Your task to perform on an android device: What's the weather going to be this weekend? Image 0: 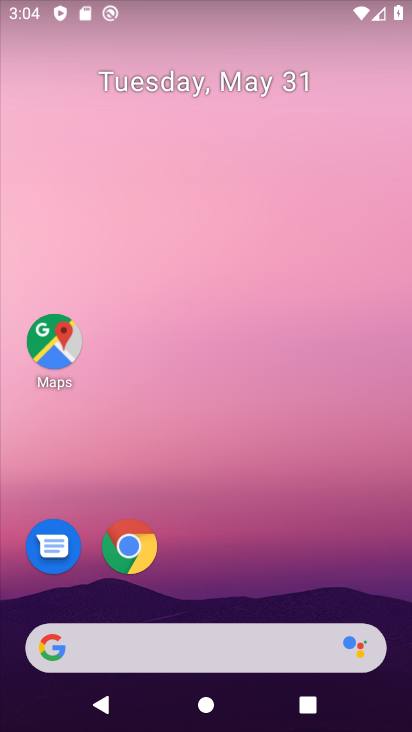
Step 0: drag from (242, 583) to (196, 172)
Your task to perform on an android device: What's the weather going to be this weekend? Image 1: 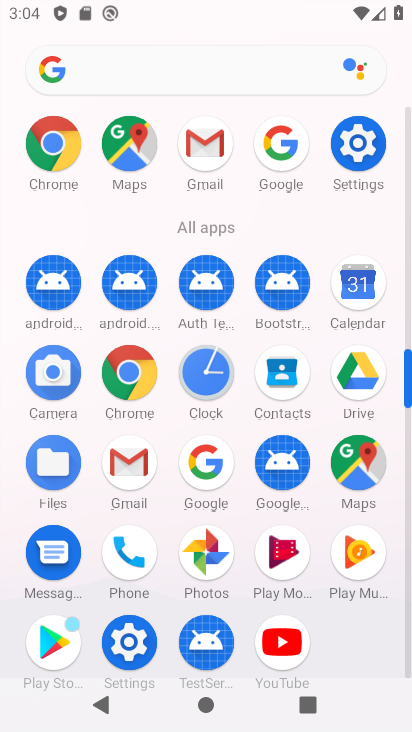
Step 1: click (281, 176)
Your task to perform on an android device: What's the weather going to be this weekend? Image 2: 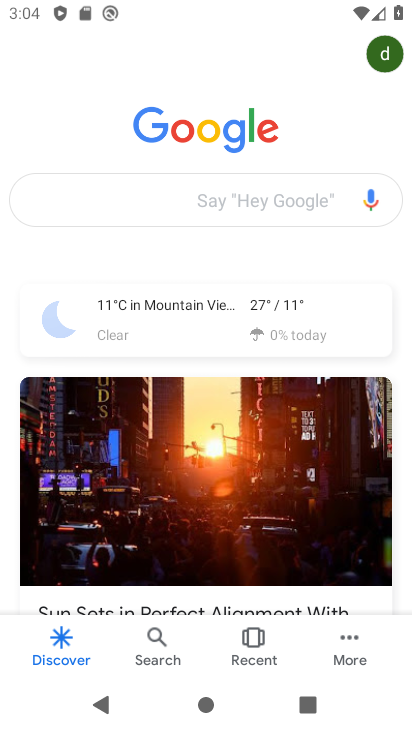
Step 2: click (173, 202)
Your task to perform on an android device: What's the weather going to be this weekend? Image 3: 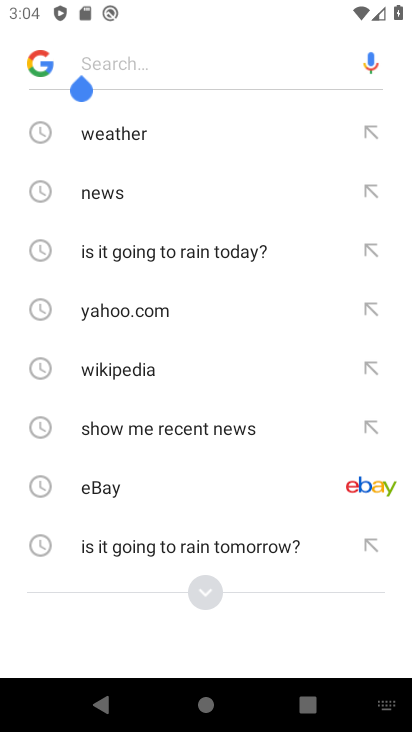
Step 3: click (106, 135)
Your task to perform on an android device: What's the weather going to be this weekend? Image 4: 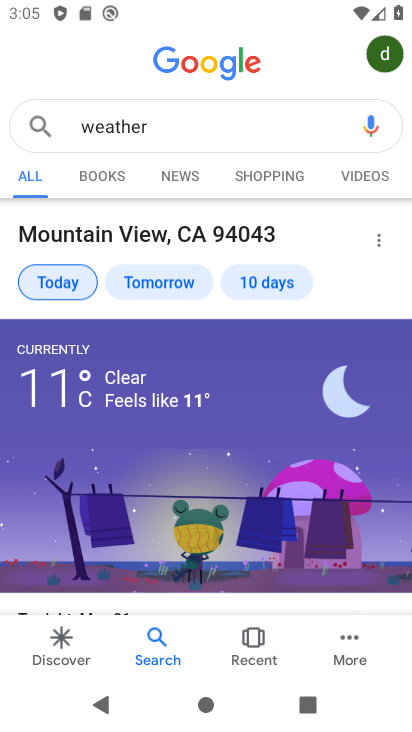
Step 4: drag from (186, 286) to (301, 297)
Your task to perform on an android device: What's the weather going to be this weekend? Image 5: 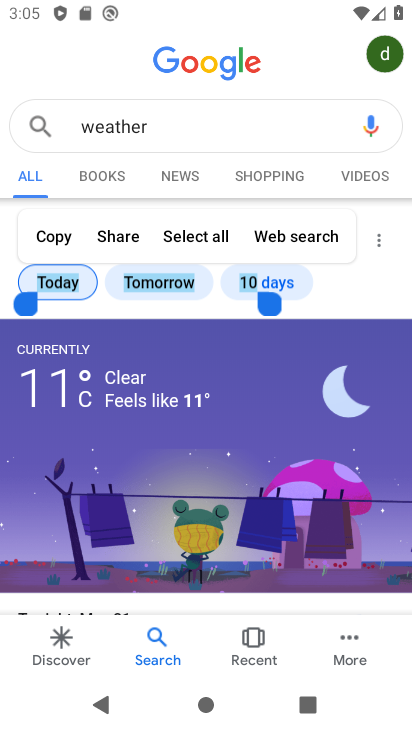
Step 5: click (285, 294)
Your task to perform on an android device: What's the weather going to be this weekend? Image 6: 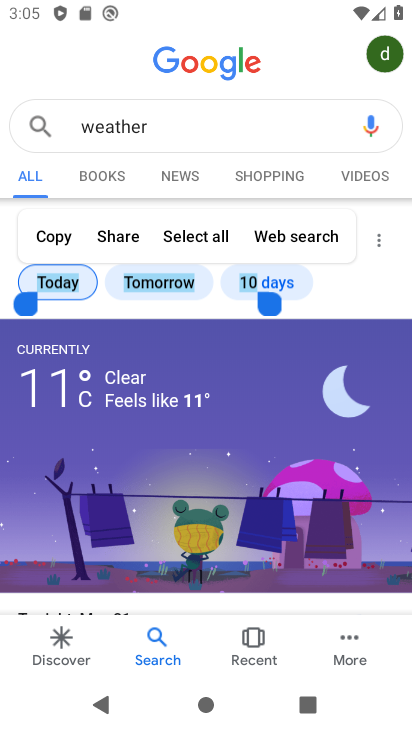
Step 6: click (270, 281)
Your task to perform on an android device: What's the weather going to be this weekend? Image 7: 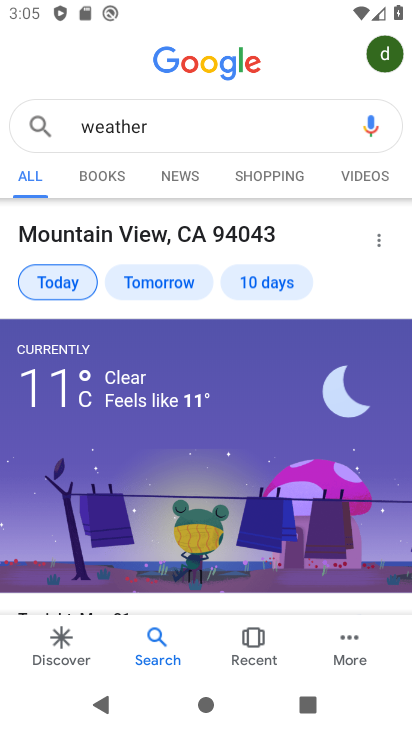
Step 7: click (262, 288)
Your task to perform on an android device: What's the weather going to be this weekend? Image 8: 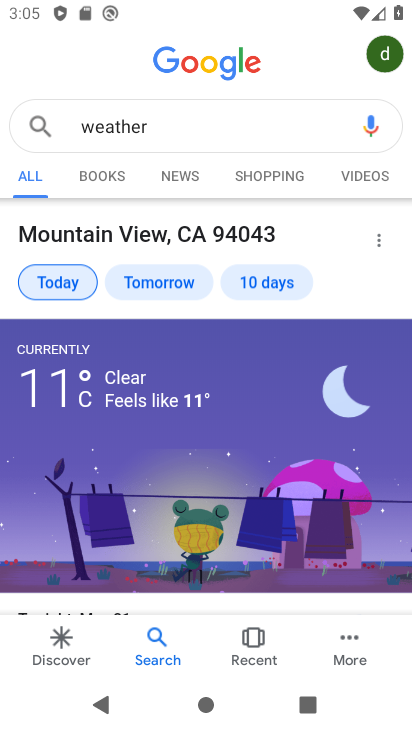
Step 8: click (252, 280)
Your task to perform on an android device: What's the weather going to be this weekend? Image 9: 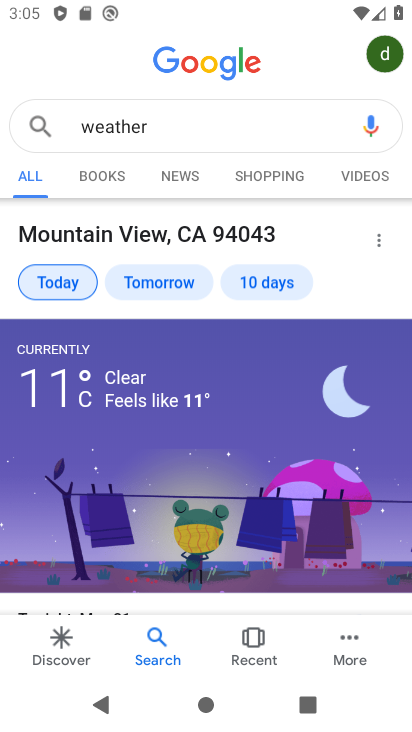
Step 9: click (252, 280)
Your task to perform on an android device: What's the weather going to be this weekend? Image 10: 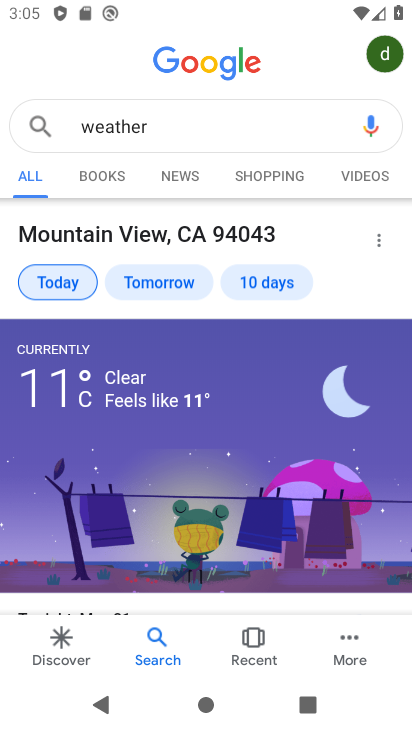
Step 10: click (252, 280)
Your task to perform on an android device: What's the weather going to be this weekend? Image 11: 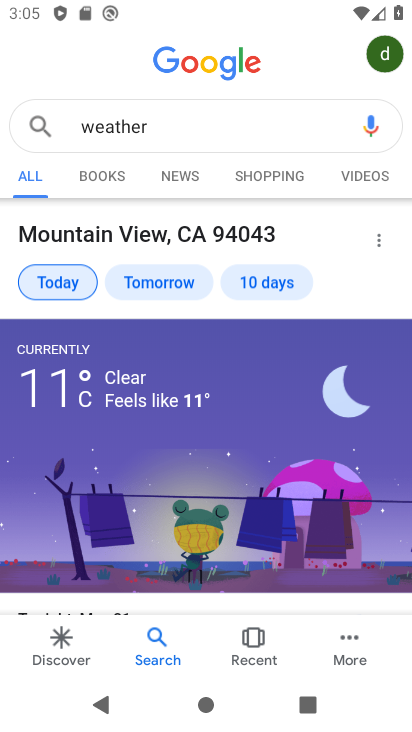
Step 11: click (252, 280)
Your task to perform on an android device: What's the weather going to be this weekend? Image 12: 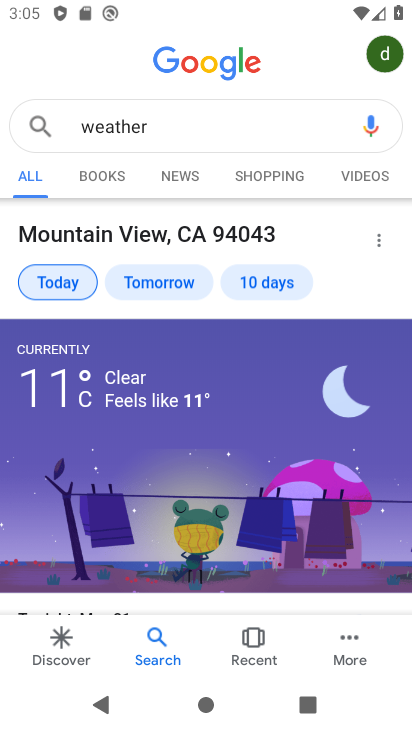
Step 12: click (274, 283)
Your task to perform on an android device: What's the weather going to be this weekend? Image 13: 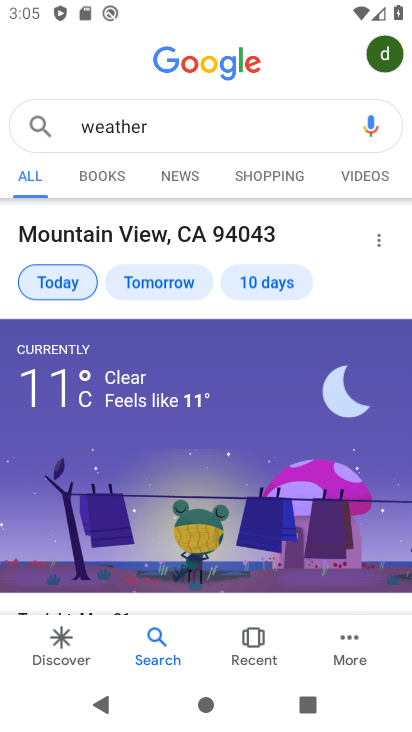
Step 13: click (274, 283)
Your task to perform on an android device: What's the weather going to be this weekend? Image 14: 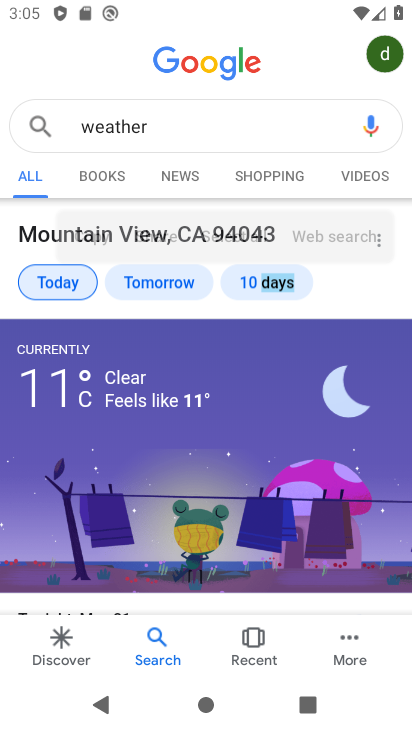
Step 14: click (274, 283)
Your task to perform on an android device: What's the weather going to be this weekend? Image 15: 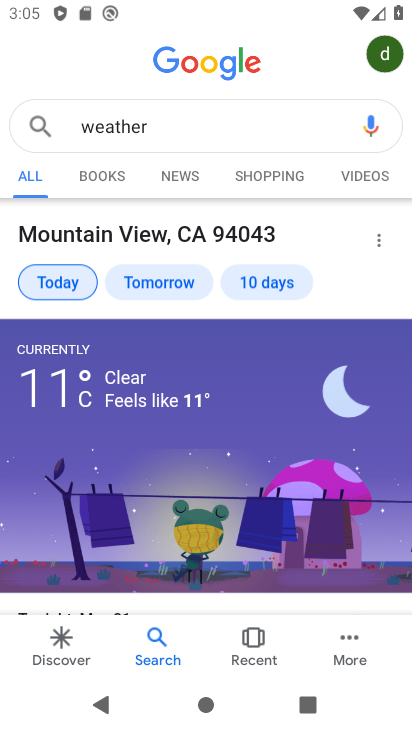
Step 15: task complete